Your task to perform on an android device: open a new tab in the chrome app Image 0: 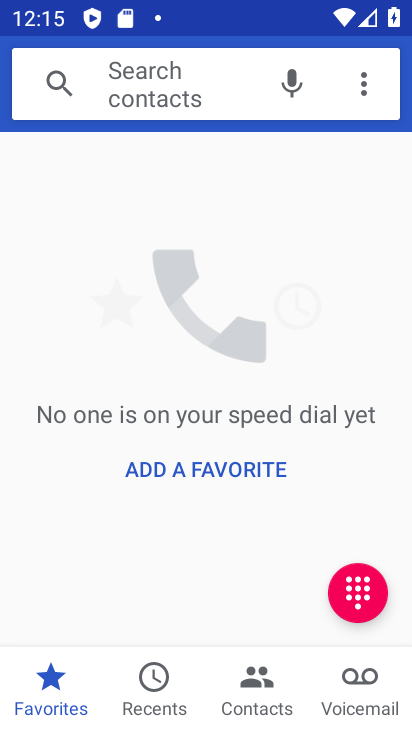
Step 0: press home button
Your task to perform on an android device: open a new tab in the chrome app Image 1: 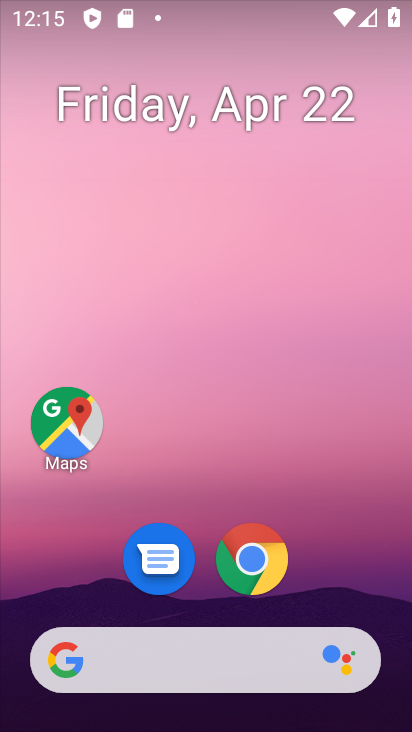
Step 1: drag from (362, 570) to (371, 153)
Your task to perform on an android device: open a new tab in the chrome app Image 2: 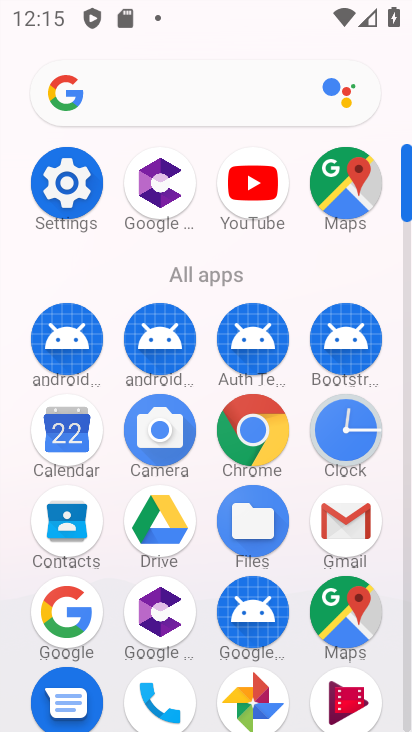
Step 2: click (250, 427)
Your task to perform on an android device: open a new tab in the chrome app Image 3: 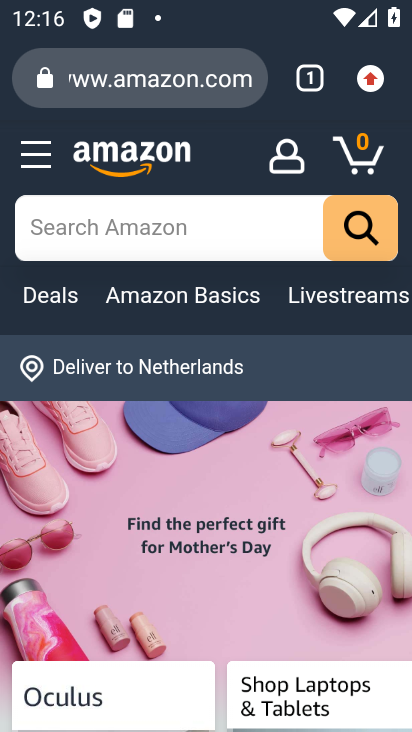
Step 3: click (369, 81)
Your task to perform on an android device: open a new tab in the chrome app Image 4: 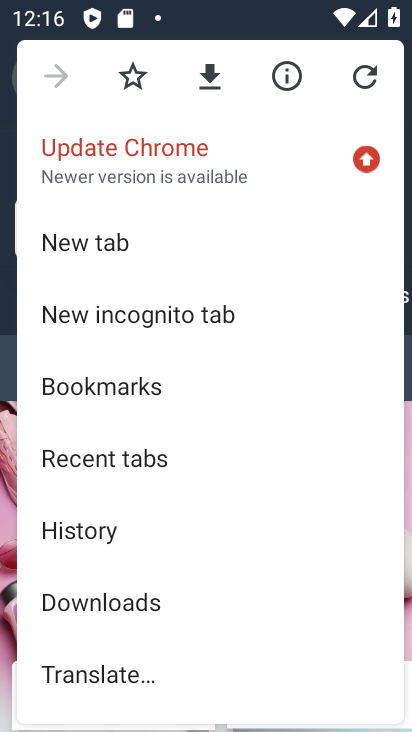
Step 4: click (109, 244)
Your task to perform on an android device: open a new tab in the chrome app Image 5: 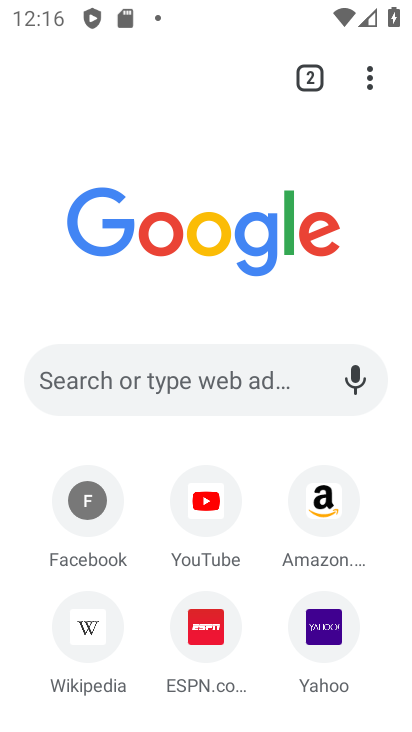
Step 5: task complete